Your task to perform on an android device: Open the calendar and show me this week's events Image 0: 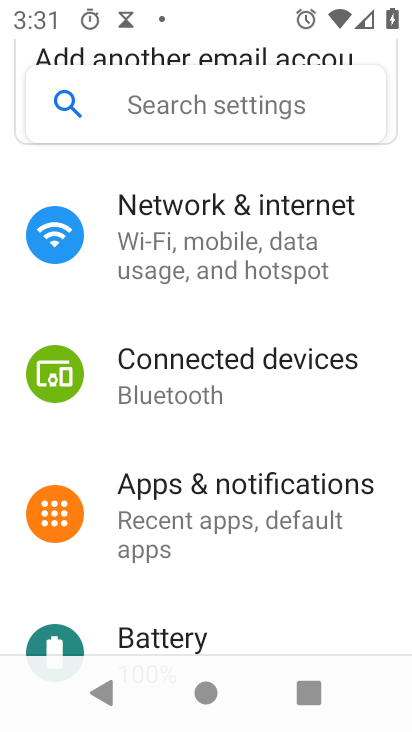
Step 0: press home button
Your task to perform on an android device: Open the calendar and show me this week's events Image 1: 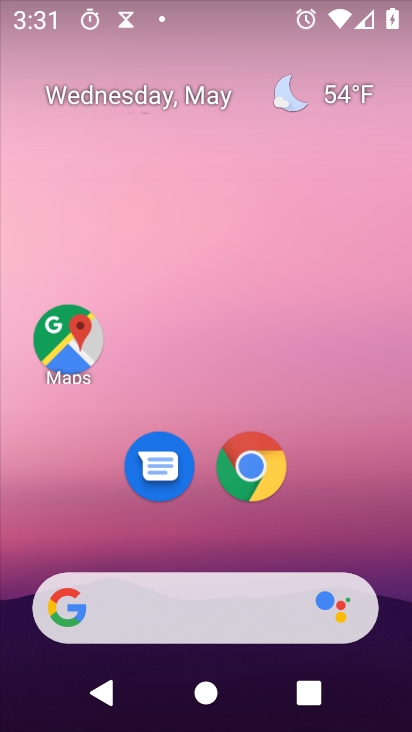
Step 1: drag from (348, 495) to (304, 109)
Your task to perform on an android device: Open the calendar and show me this week's events Image 2: 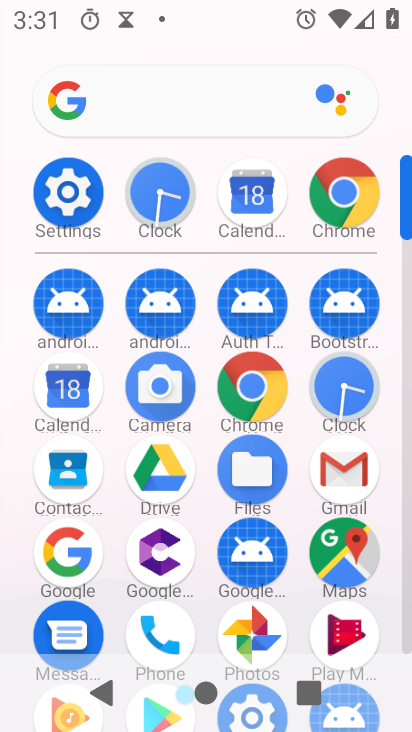
Step 2: click (250, 193)
Your task to perform on an android device: Open the calendar and show me this week's events Image 3: 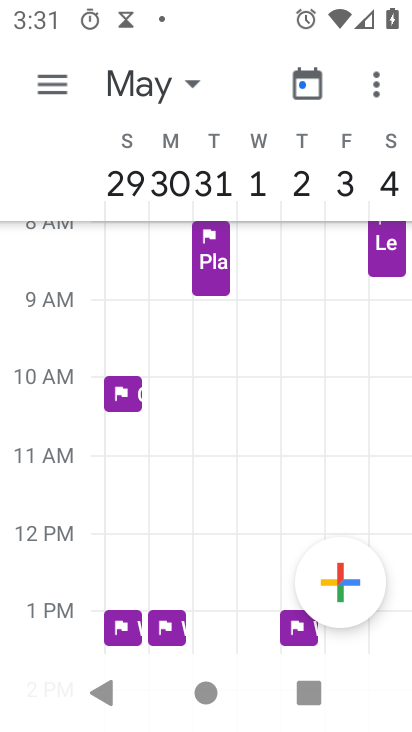
Step 3: click (52, 98)
Your task to perform on an android device: Open the calendar and show me this week's events Image 4: 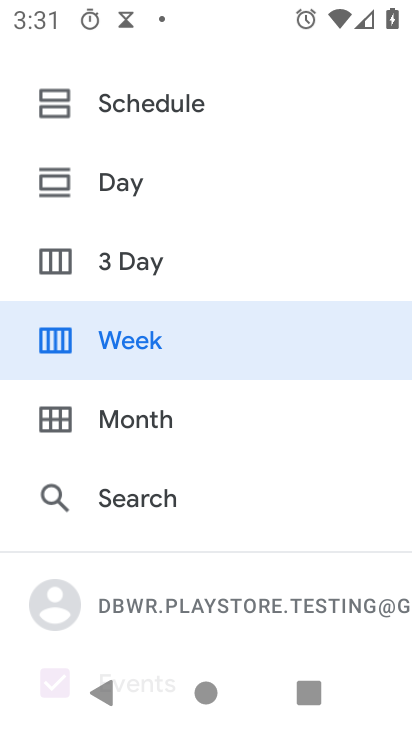
Step 4: drag from (198, 510) to (196, 691)
Your task to perform on an android device: Open the calendar and show me this week's events Image 5: 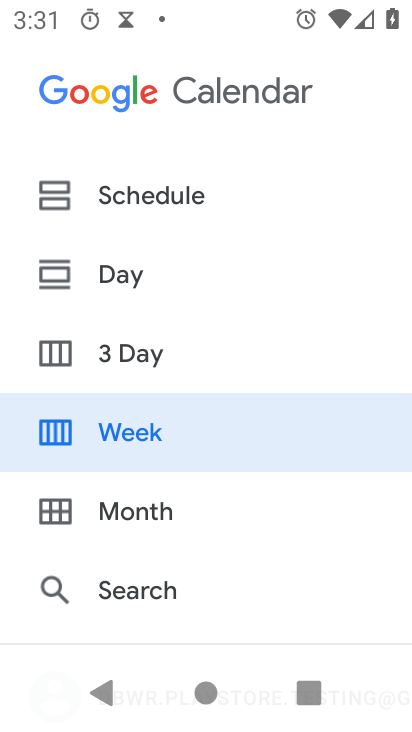
Step 5: click (148, 448)
Your task to perform on an android device: Open the calendar and show me this week's events Image 6: 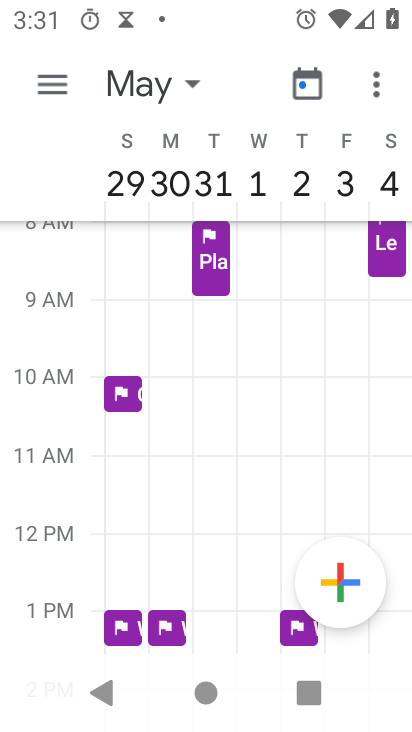
Step 6: click (182, 87)
Your task to perform on an android device: Open the calendar and show me this week's events Image 7: 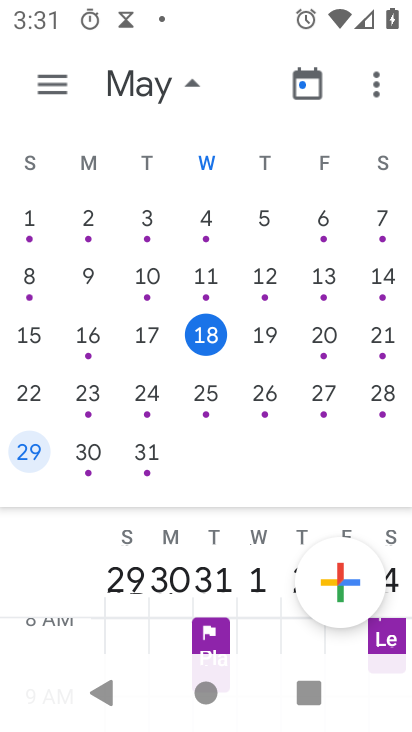
Step 7: drag from (153, 266) to (388, 282)
Your task to perform on an android device: Open the calendar and show me this week's events Image 8: 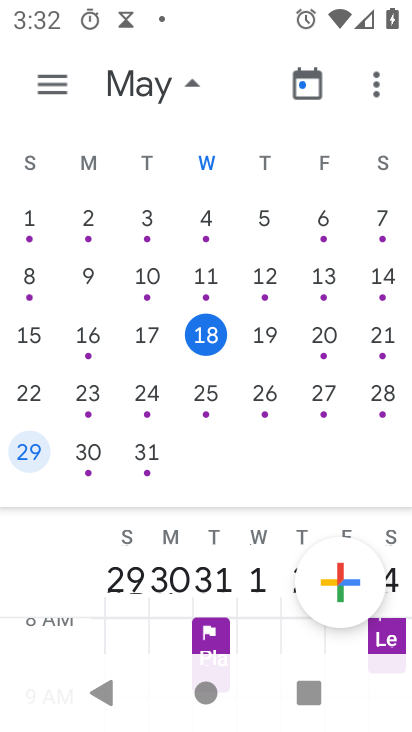
Step 8: click (207, 336)
Your task to perform on an android device: Open the calendar and show me this week's events Image 9: 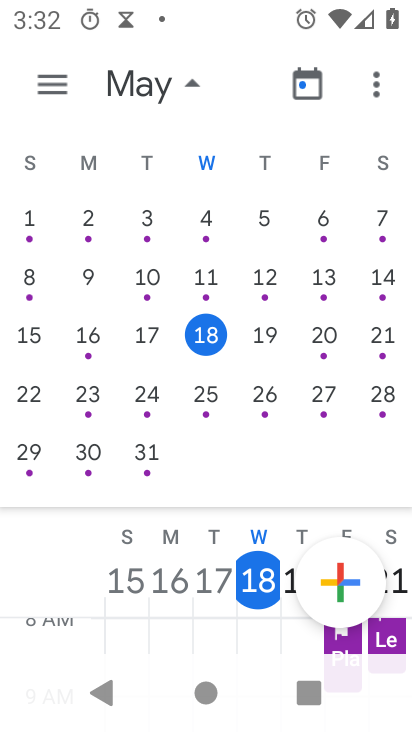
Step 9: click (181, 77)
Your task to perform on an android device: Open the calendar and show me this week's events Image 10: 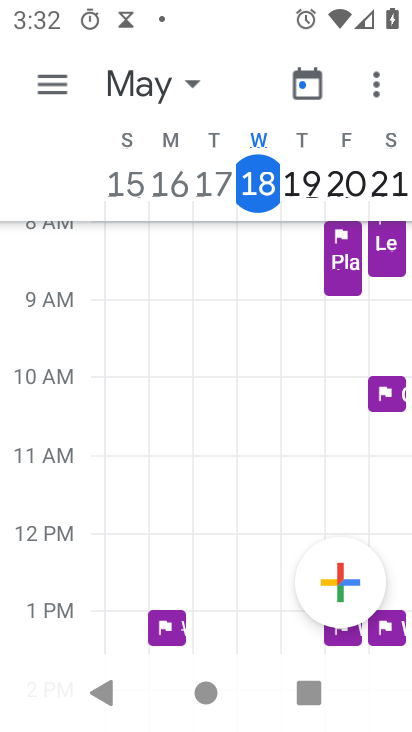
Step 10: task complete